Your task to perform on an android device: choose inbox layout in the gmail app Image 0: 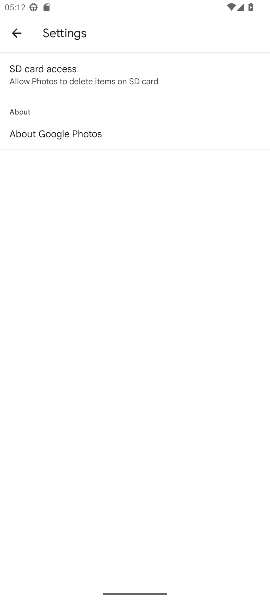
Step 0: press home button
Your task to perform on an android device: choose inbox layout in the gmail app Image 1: 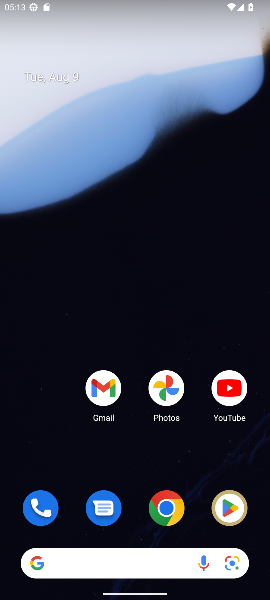
Step 1: click (106, 381)
Your task to perform on an android device: choose inbox layout in the gmail app Image 2: 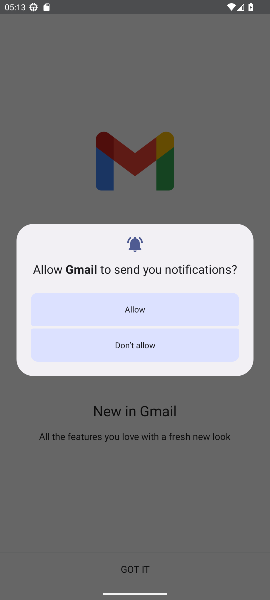
Step 2: click (156, 300)
Your task to perform on an android device: choose inbox layout in the gmail app Image 3: 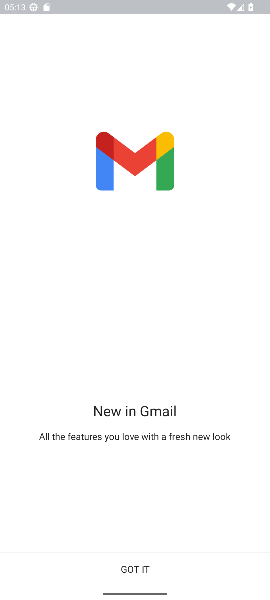
Step 3: click (120, 566)
Your task to perform on an android device: choose inbox layout in the gmail app Image 4: 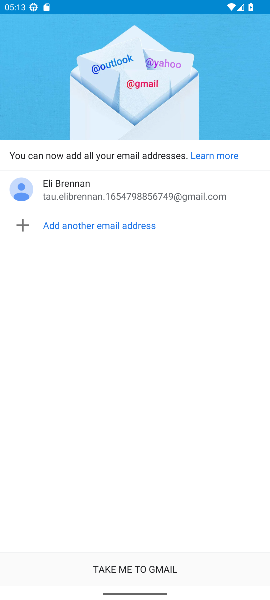
Step 4: click (120, 566)
Your task to perform on an android device: choose inbox layout in the gmail app Image 5: 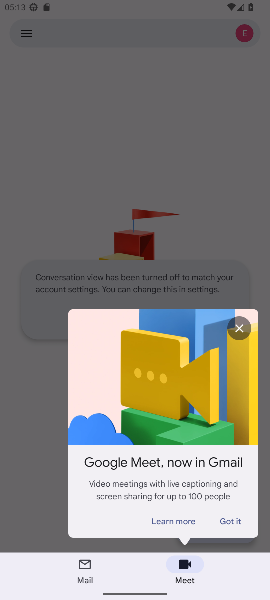
Step 5: click (237, 329)
Your task to perform on an android device: choose inbox layout in the gmail app Image 6: 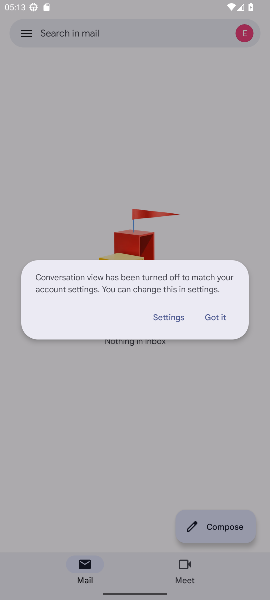
Step 6: click (221, 317)
Your task to perform on an android device: choose inbox layout in the gmail app Image 7: 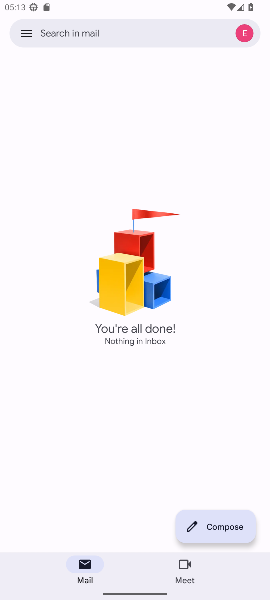
Step 7: click (25, 36)
Your task to perform on an android device: choose inbox layout in the gmail app Image 8: 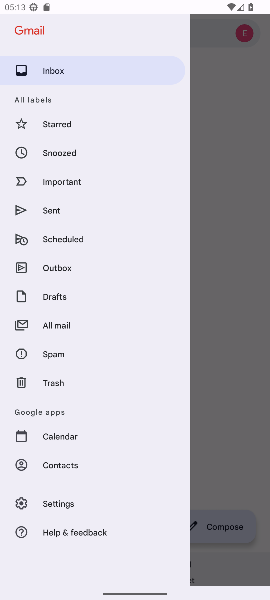
Step 8: click (64, 499)
Your task to perform on an android device: choose inbox layout in the gmail app Image 9: 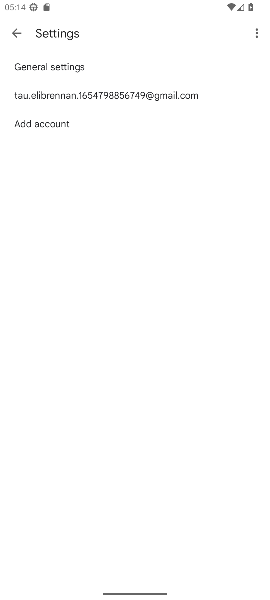
Step 9: click (142, 88)
Your task to perform on an android device: choose inbox layout in the gmail app Image 10: 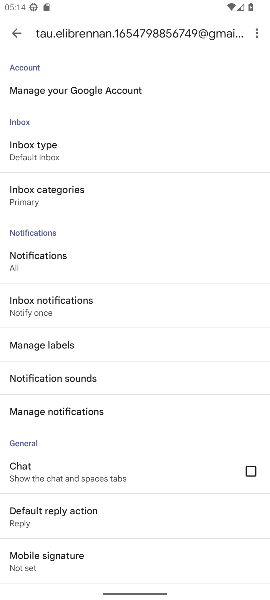
Step 10: click (71, 154)
Your task to perform on an android device: choose inbox layout in the gmail app Image 11: 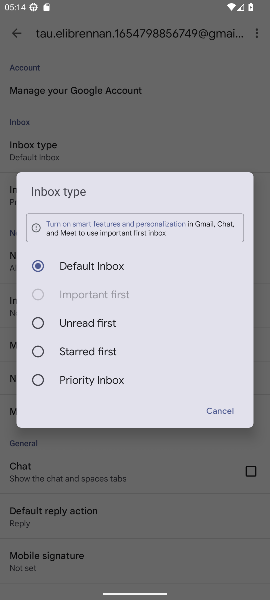
Step 11: click (69, 380)
Your task to perform on an android device: choose inbox layout in the gmail app Image 12: 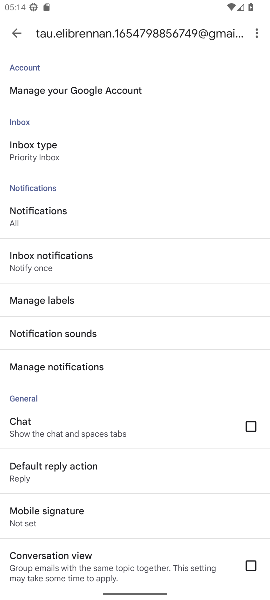
Step 12: task complete